Your task to perform on an android device: Go to internet settings Image 0: 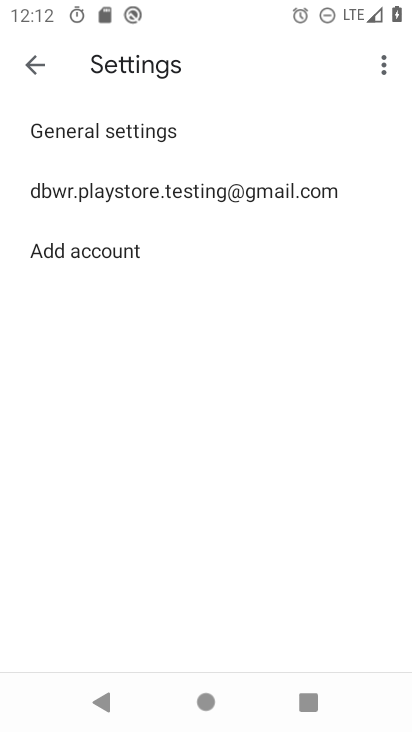
Step 0: press home button
Your task to perform on an android device: Go to internet settings Image 1: 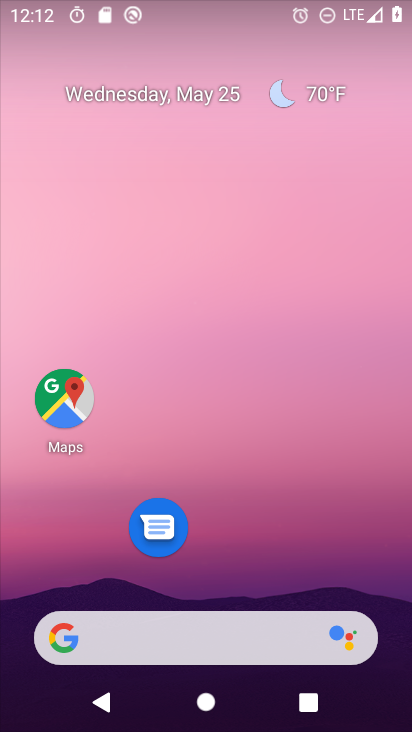
Step 1: drag from (251, 548) to (243, 214)
Your task to perform on an android device: Go to internet settings Image 2: 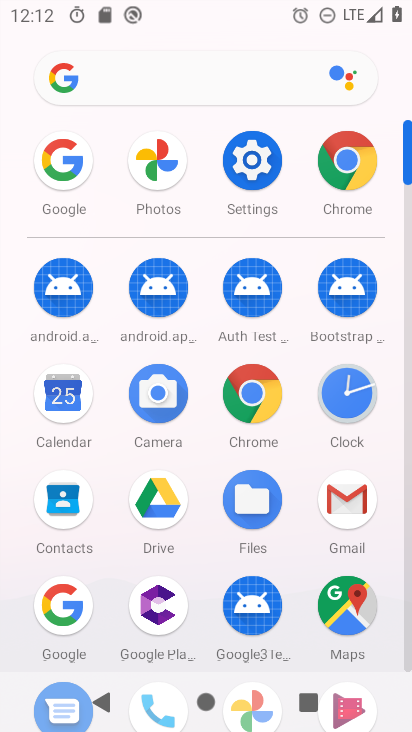
Step 2: click (258, 155)
Your task to perform on an android device: Go to internet settings Image 3: 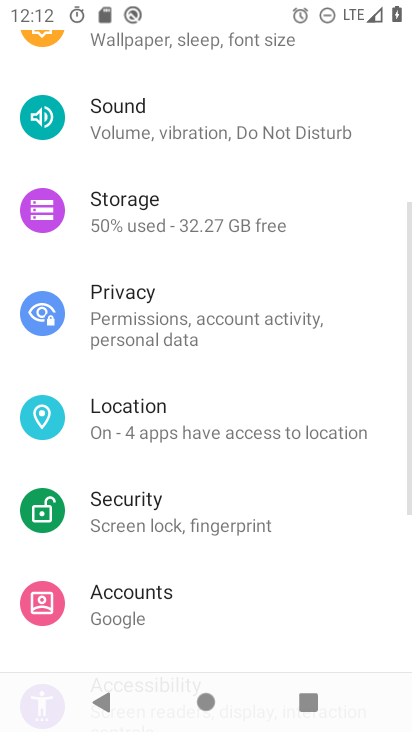
Step 3: drag from (221, 153) to (308, 600)
Your task to perform on an android device: Go to internet settings Image 4: 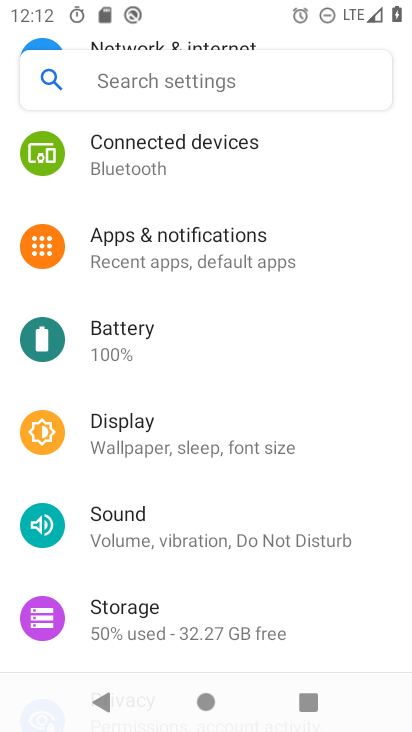
Step 4: drag from (192, 197) to (240, 563)
Your task to perform on an android device: Go to internet settings Image 5: 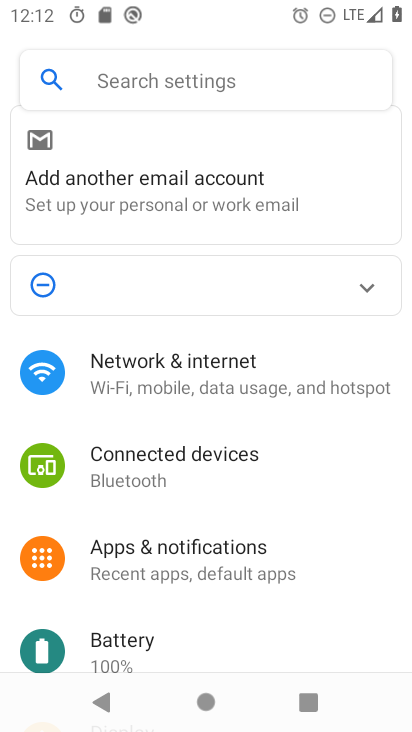
Step 5: click (208, 371)
Your task to perform on an android device: Go to internet settings Image 6: 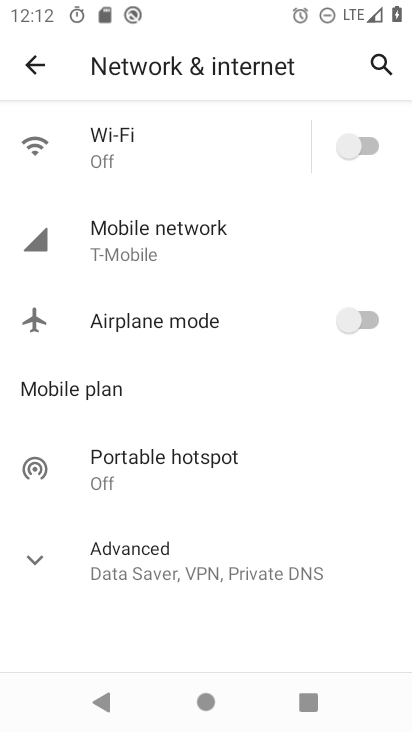
Step 6: click (338, 139)
Your task to perform on an android device: Go to internet settings Image 7: 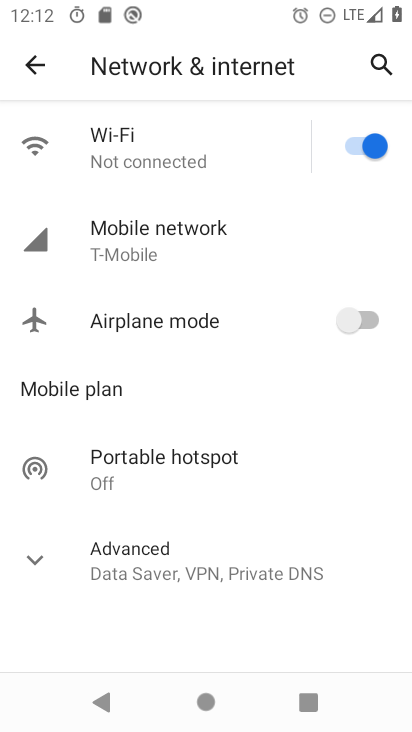
Step 7: click (187, 141)
Your task to perform on an android device: Go to internet settings Image 8: 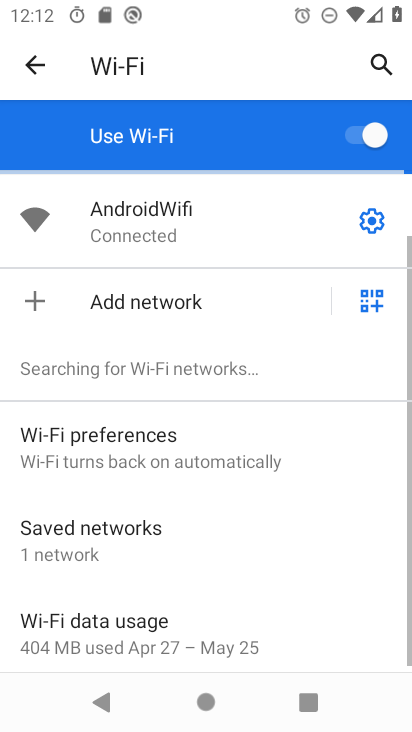
Step 8: click (242, 206)
Your task to perform on an android device: Go to internet settings Image 9: 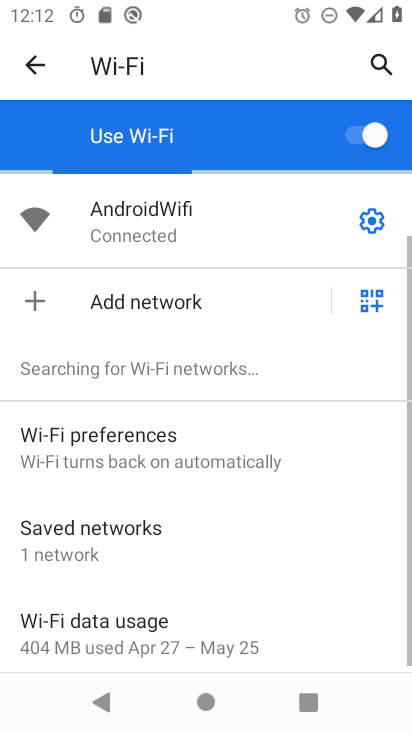
Step 9: click (218, 233)
Your task to perform on an android device: Go to internet settings Image 10: 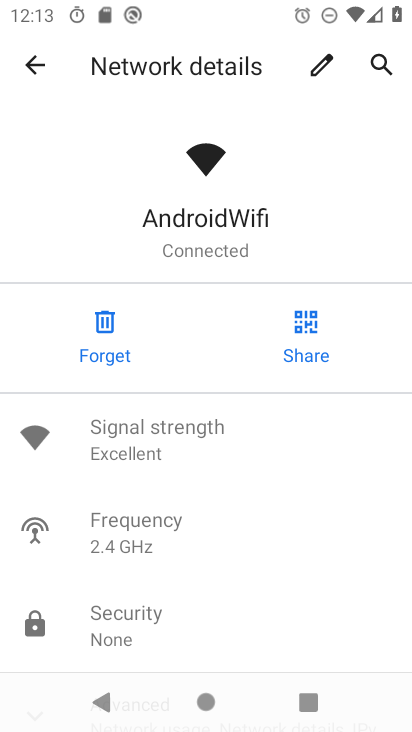
Step 10: task complete